Your task to perform on an android device: Is it going to rain today? Image 0: 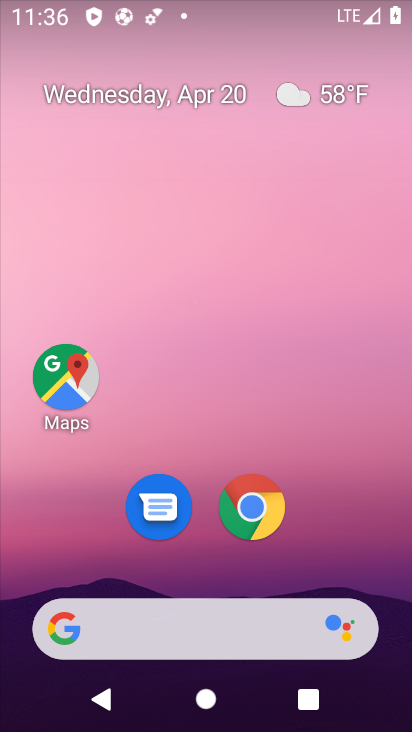
Step 0: click (220, 622)
Your task to perform on an android device: Is it going to rain today? Image 1: 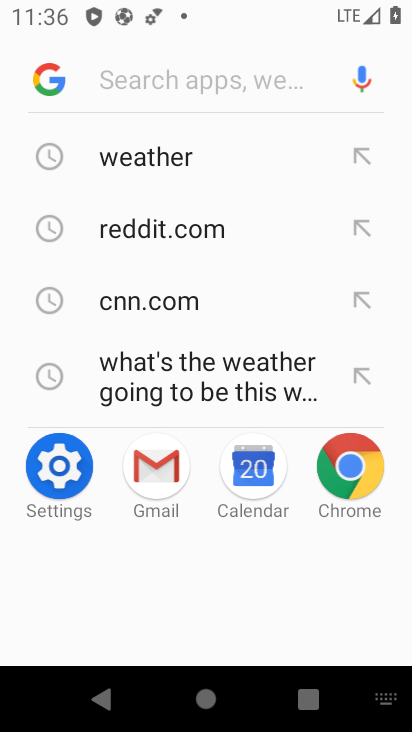
Step 1: click (167, 154)
Your task to perform on an android device: Is it going to rain today? Image 2: 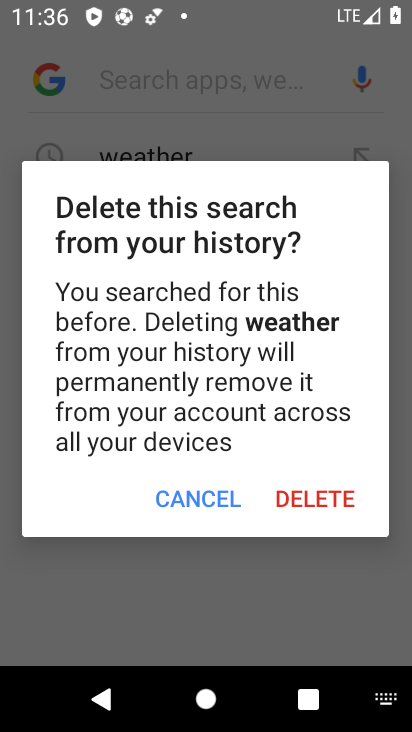
Step 2: click (204, 498)
Your task to perform on an android device: Is it going to rain today? Image 3: 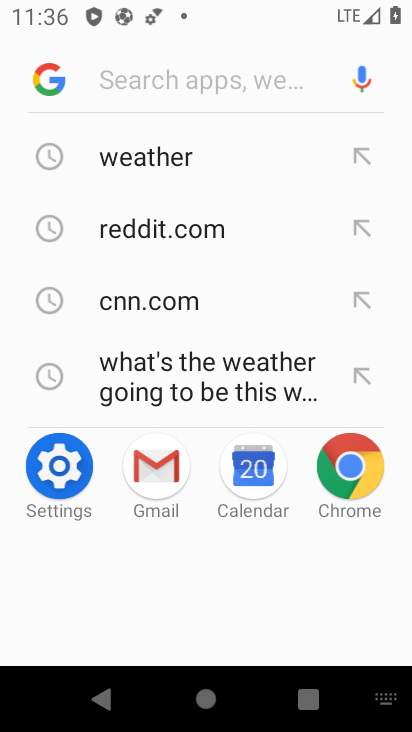
Step 3: click (160, 155)
Your task to perform on an android device: Is it going to rain today? Image 4: 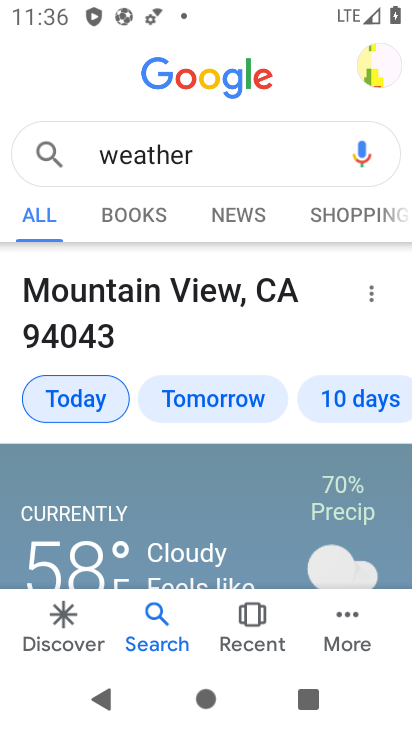
Step 4: task complete